Your task to perform on an android device: toggle sleep mode Image 0: 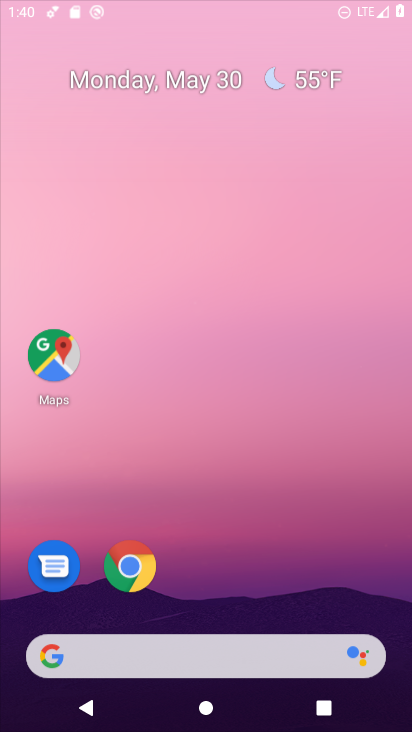
Step 0: press home button
Your task to perform on an android device: toggle sleep mode Image 1: 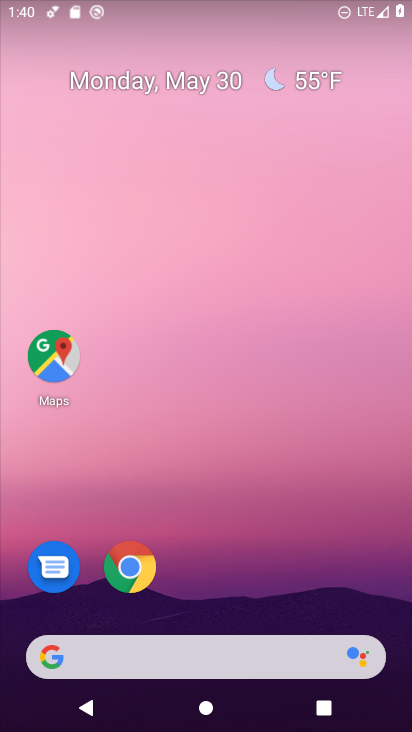
Step 1: press home button
Your task to perform on an android device: toggle sleep mode Image 2: 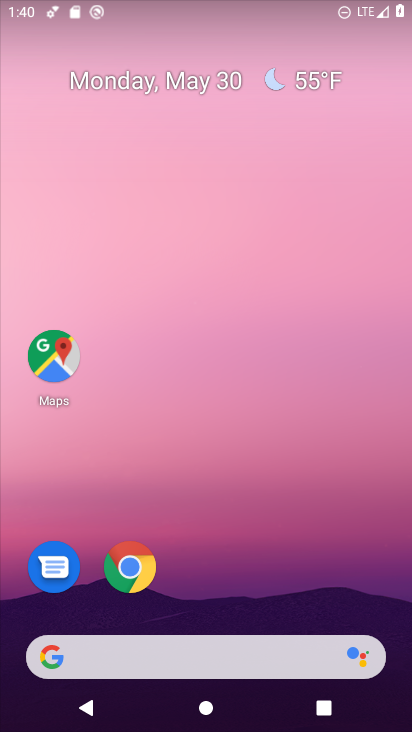
Step 2: drag from (201, 618) to (250, 222)
Your task to perform on an android device: toggle sleep mode Image 3: 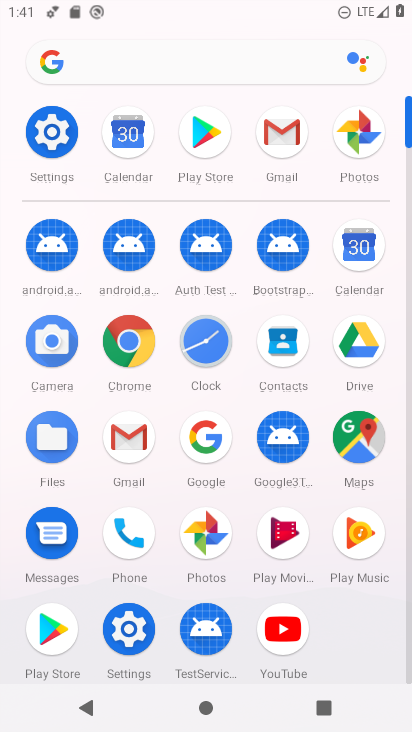
Step 3: click (55, 130)
Your task to perform on an android device: toggle sleep mode Image 4: 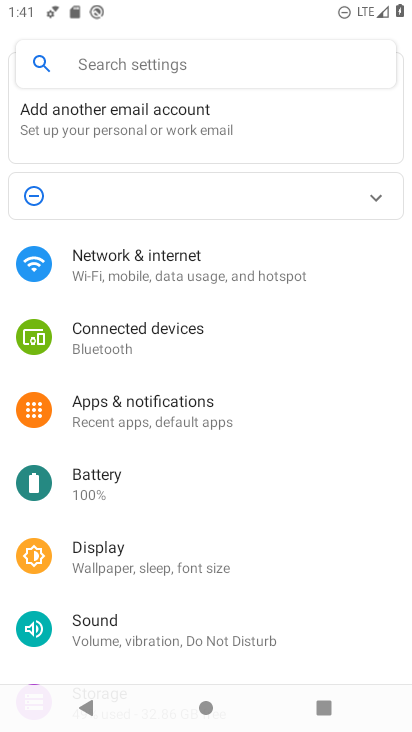
Step 4: click (136, 559)
Your task to perform on an android device: toggle sleep mode Image 5: 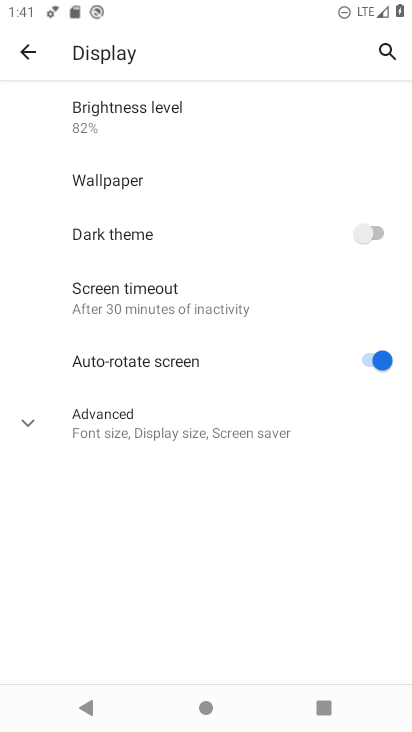
Step 5: click (25, 417)
Your task to perform on an android device: toggle sleep mode Image 6: 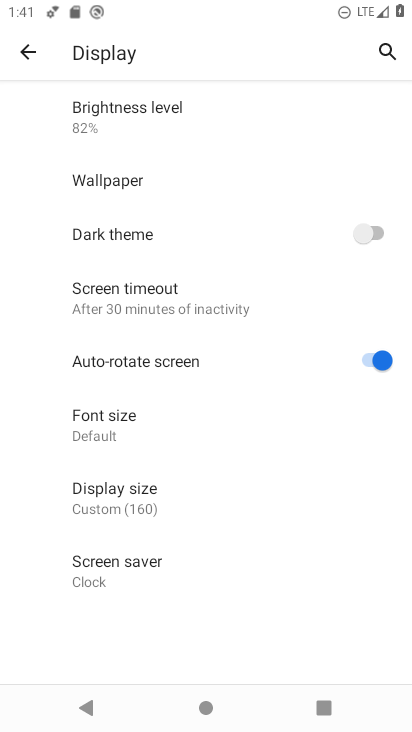
Step 6: task complete